Your task to perform on an android device: Turn off the flashlight Image 0: 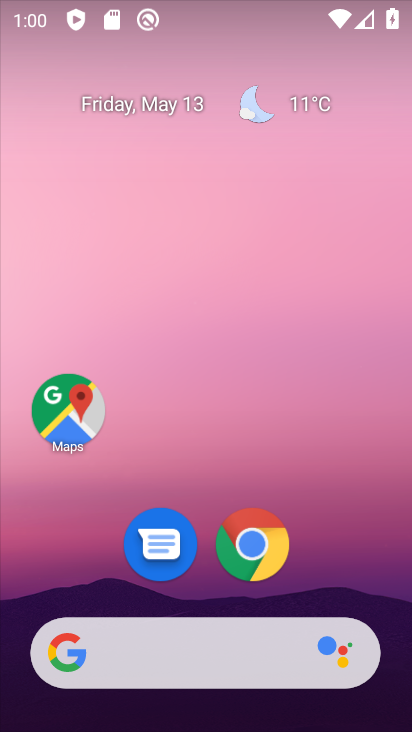
Step 0: drag from (186, 582) to (257, 256)
Your task to perform on an android device: Turn off the flashlight Image 1: 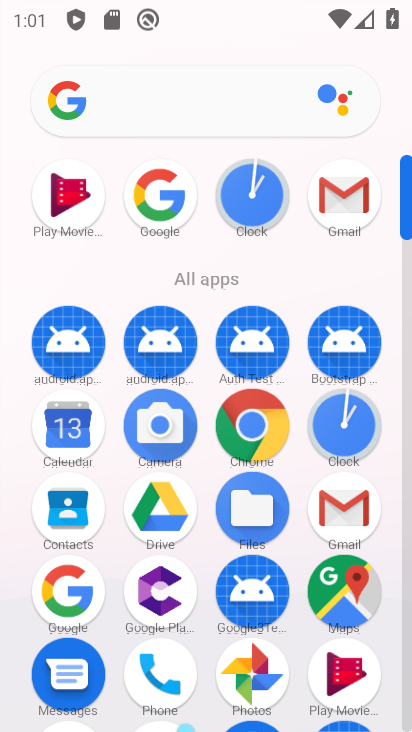
Step 1: drag from (199, 676) to (265, 264)
Your task to perform on an android device: Turn off the flashlight Image 2: 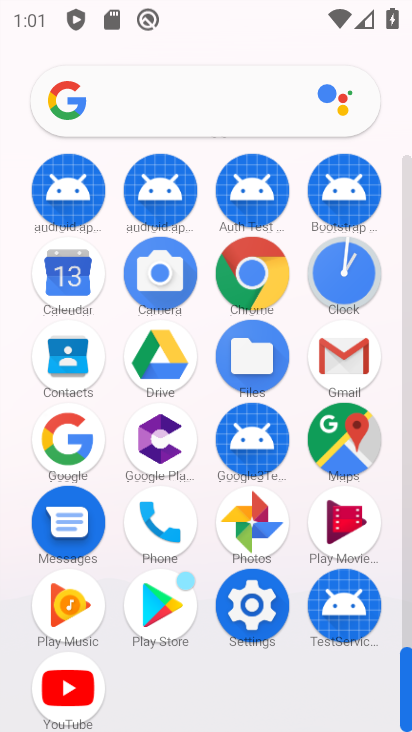
Step 2: click (250, 598)
Your task to perform on an android device: Turn off the flashlight Image 3: 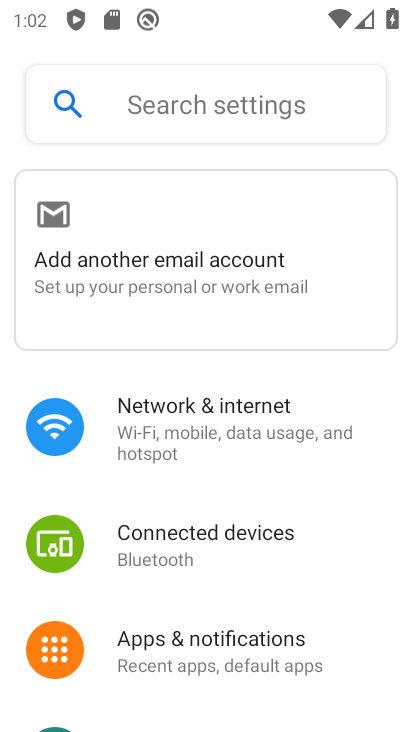
Step 3: drag from (228, 625) to (283, 252)
Your task to perform on an android device: Turn off the flashlight Image 4: 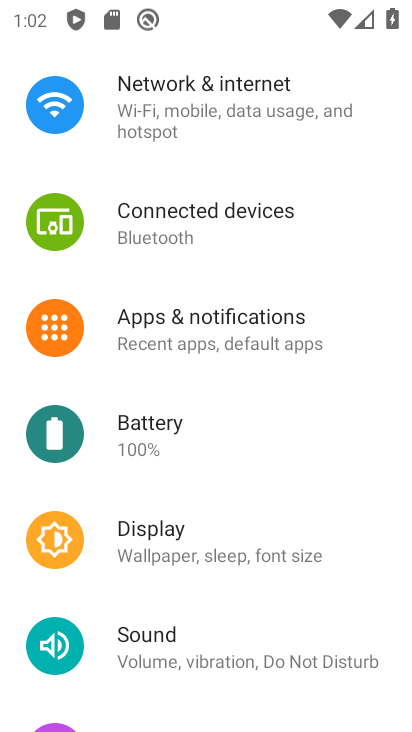
Step 4: click (245, 545)
Your task to perform on an android device: Turn off the flashlight Image 5: 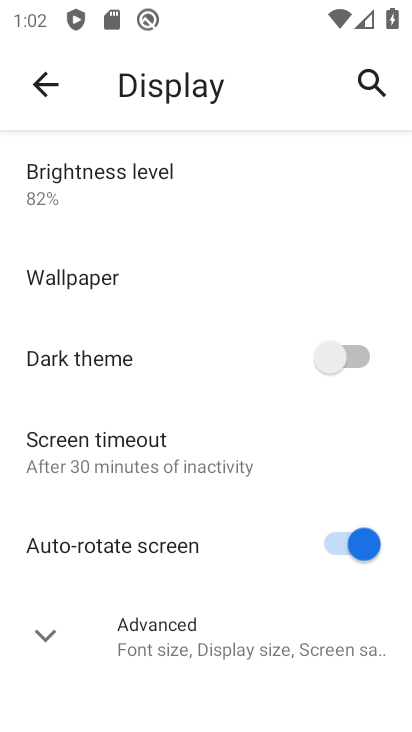
Step 5: task complete